Your task to perform on an android device: toggle notifications settings in the gmail app Image 0: 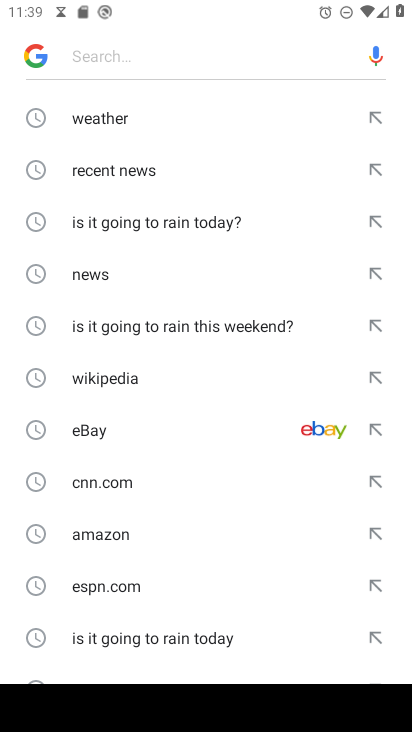
Step 0: press home button
Your task to perform on an android device: toggle notifications settings in the gmail app Image 1: 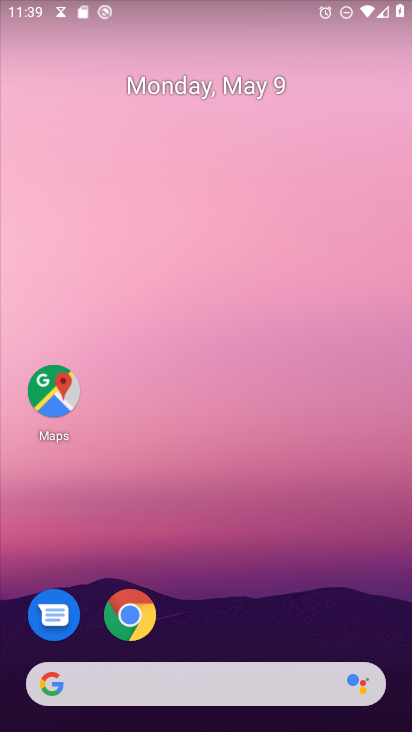
Step 1: drag from (202, 725) to (199, 228)
Your task to perform on an android device: toggle notifications settings in the gmail app Image 2: 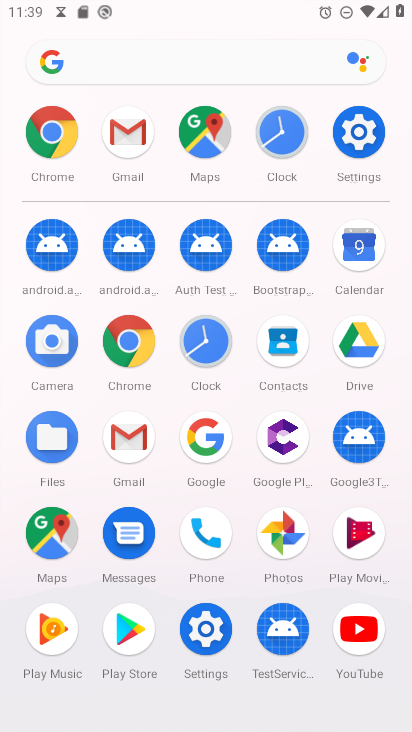
Step 2: click (128, 438)
Your task to perform on an android device: toggle notifications settings in the gmail app Image 3: 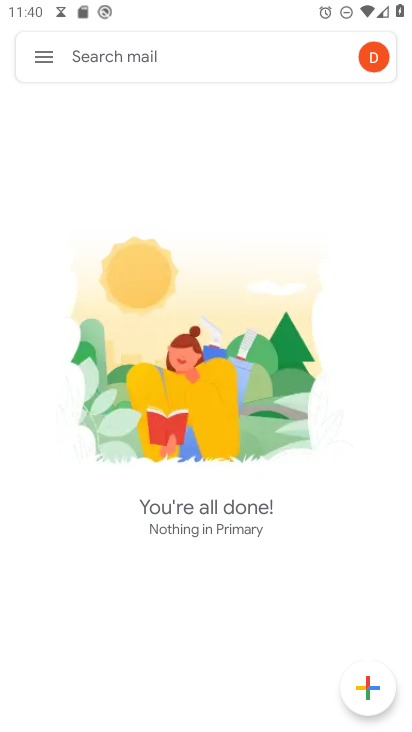
Step 3: click (37, 60)
Your task to perform on an android device: toggle notifications settings in the gmail app Image 4: 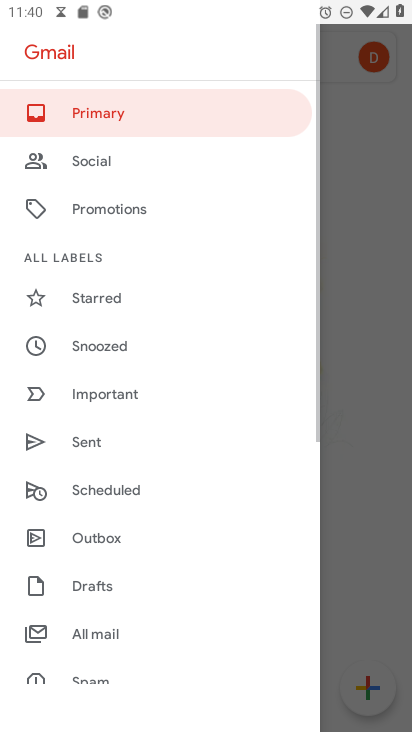
Step 4: drag from (120, 649) to (122, 350)
Your task to perform on an android device: toggle notifications settings in the gmail app Image 5: 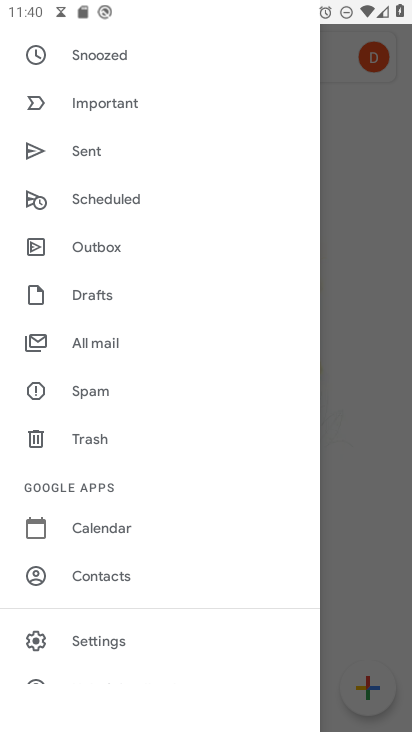
Step 5: click (95, 640)
Your task to perform on an android device: toggle notifications settings in the gmail app Image 6: 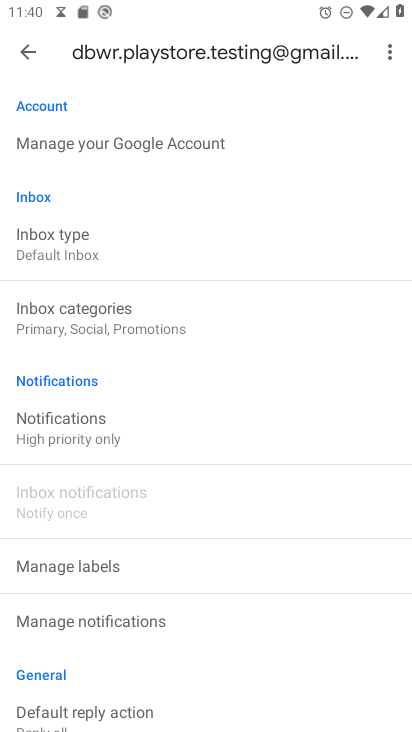
Step 6: click (83, 423)
Your task to perform on an android device: toggle notifications settings in the gmail app Image 7: 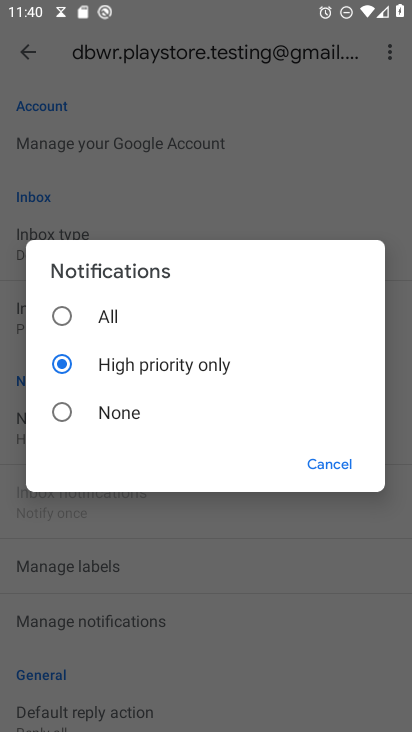
Step 7: click (59, 316)
Your task to perform on an android device: toggle notifications settings in the gmail app Image 8: 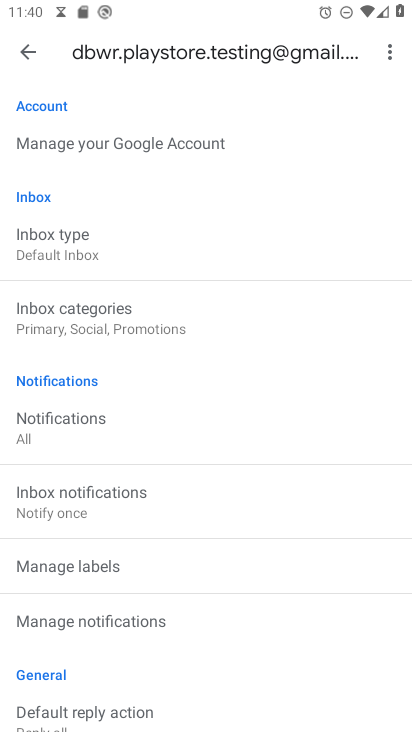
Step 8: task complete